Your task to perform on an android device: Go to Maps Image 0: 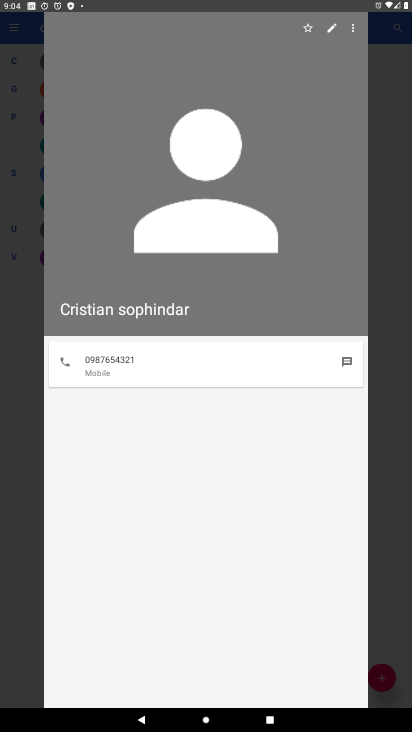
Step 0: press home button
Your task to perform on an android device: Go to Maps Image 1: 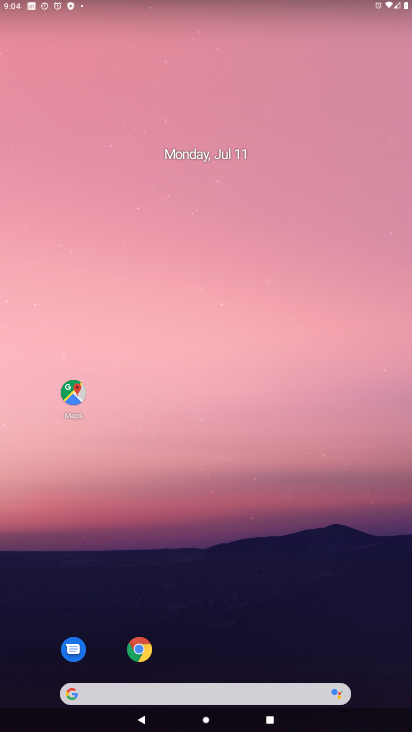
Step 1: click (73, 395)
Your task to perform on an android device: Go to Maps Image 2: 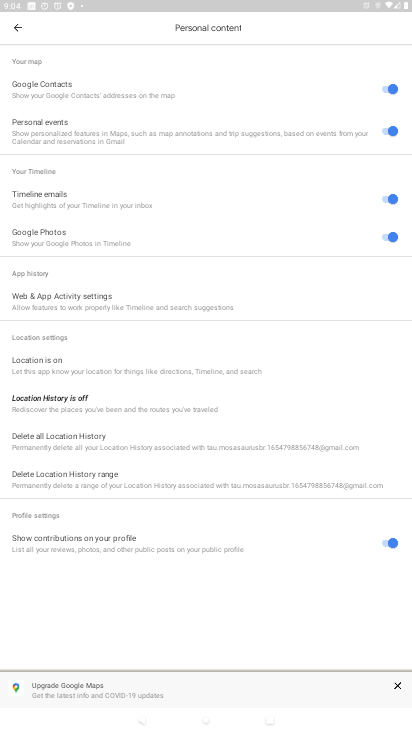
Step 2: task complete